Your task to perform on an android device: Search for Italian restaurants on Maps Image 0: 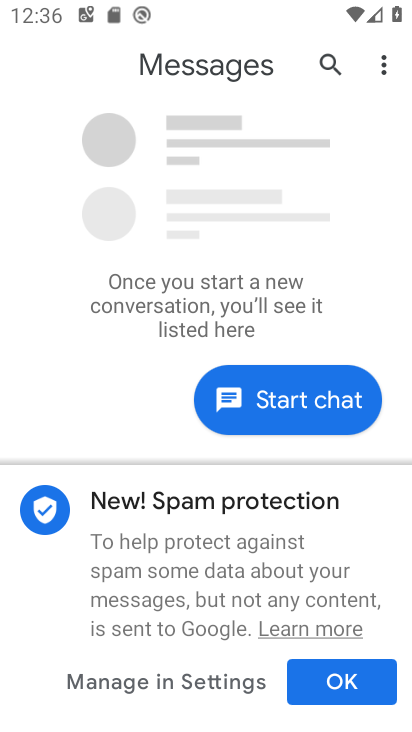
Step 0: press home button
Your task to perform on an android device: Search for Italian restaurants on Maps Image 1: 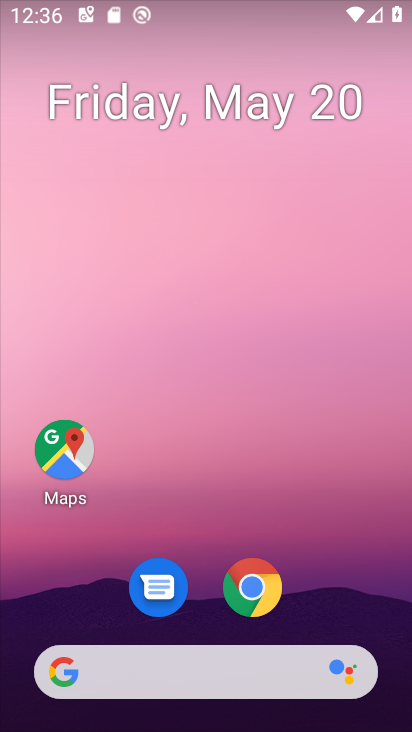
Step 1: drag from (352, 549) to (342, 281)
Your task to perform on an android device: Search for Italian restaurants on Maps Image 2: 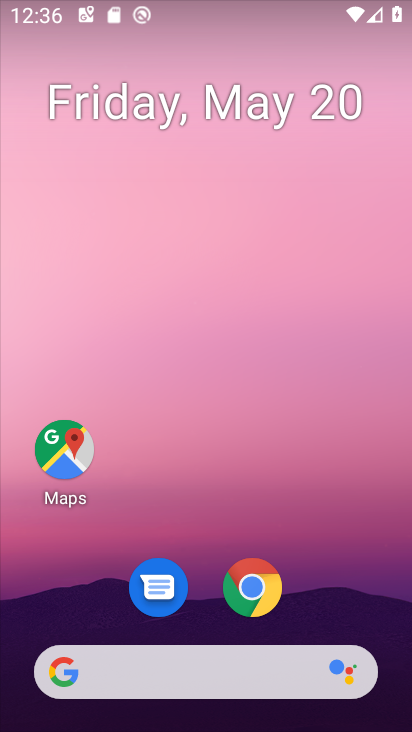
Step 2: drag from (366, 595) to (339, 153)
Your task to perform on an android device: Search for Italian restaurants on Maps Image 3: 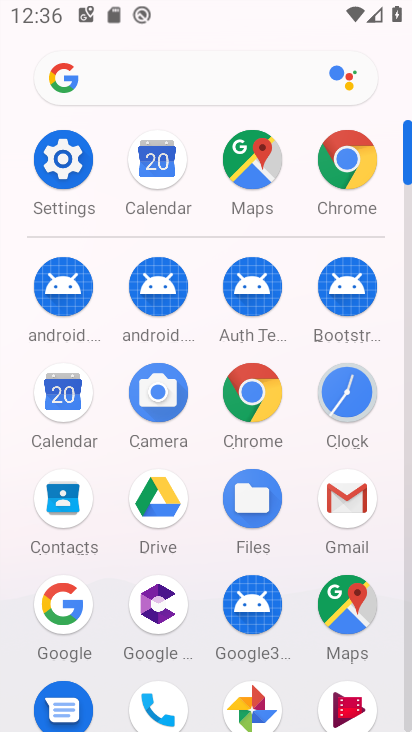
Step 3: click (357, 610)
Your task to perform on an android device: Search for Italian restaurants on Maps Image 4: 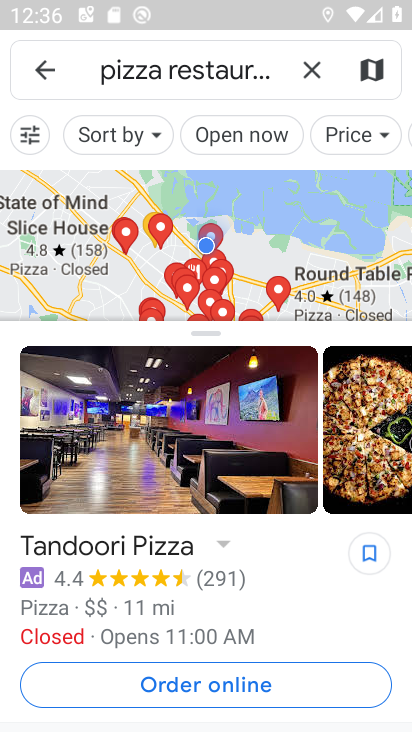
Step 4: click (312, 73)
Your task to perform on an android device: Search for Italian restaurants on Maps Image 5: 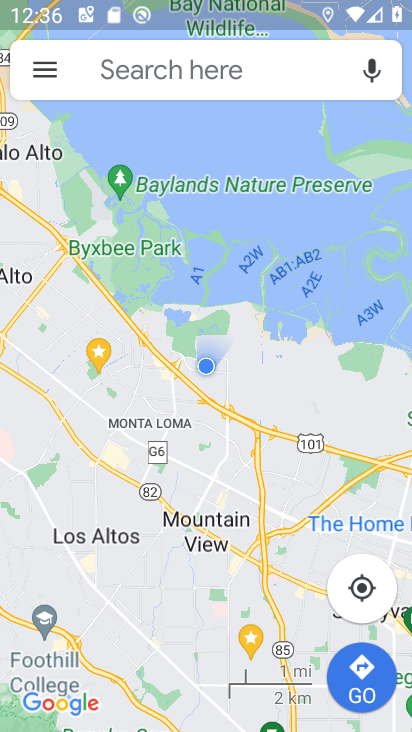
Step 5: click (284, 80)
Your task to perform on an android device: Search for Italian restaurants on Maps Image 6: 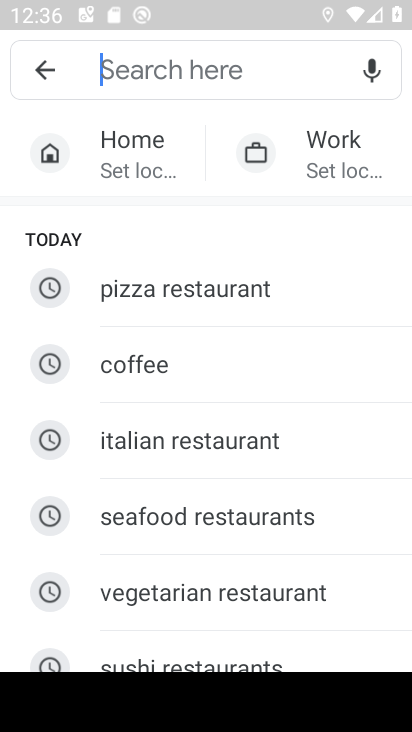
Step 6: type "italian restaurants"
Your task to perform on an android device: Search for Italian restaurants on Maps Image 7: 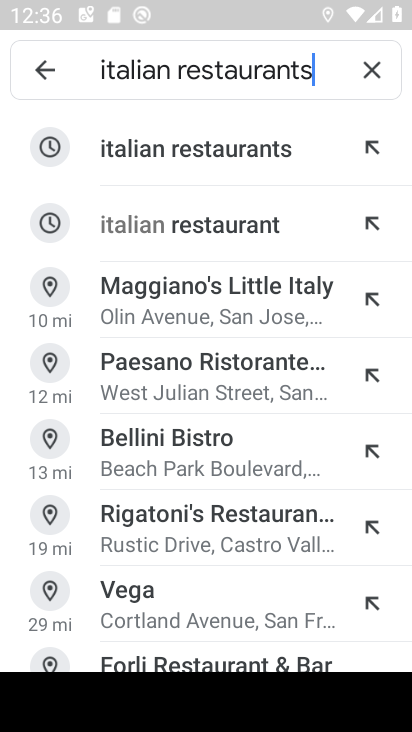
Step 7: click (278, 147)
Your task to perform on an android device: Search for Italian restaurants on Maps Image 8: 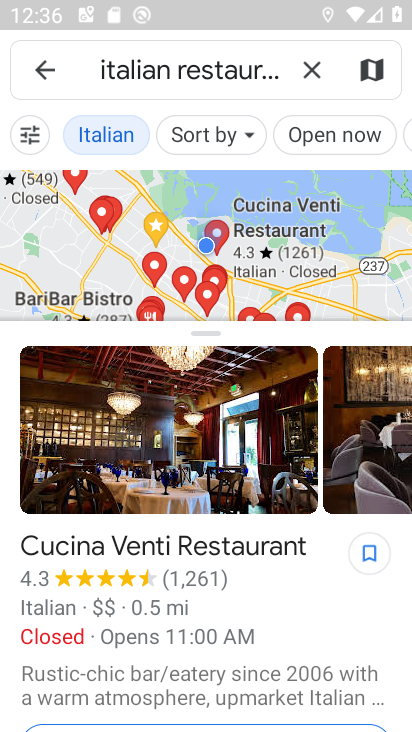
Step 8: task complete